Your task to perform on an android device: toggle improve location accuracy Image 0: 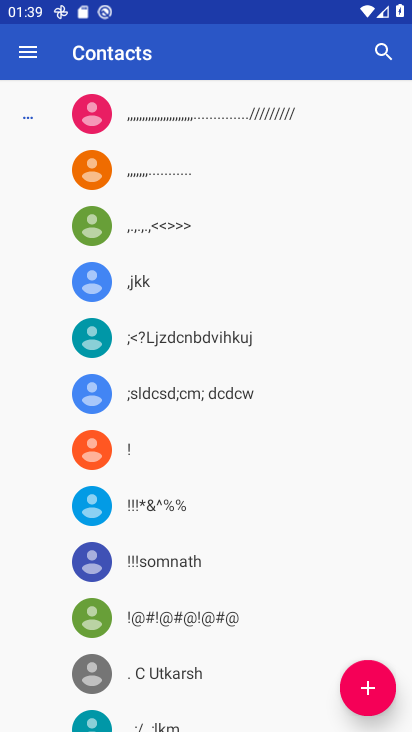
Step 0: press home button
Your task to perform on an android device: toggle improve location accuracy Image 1: 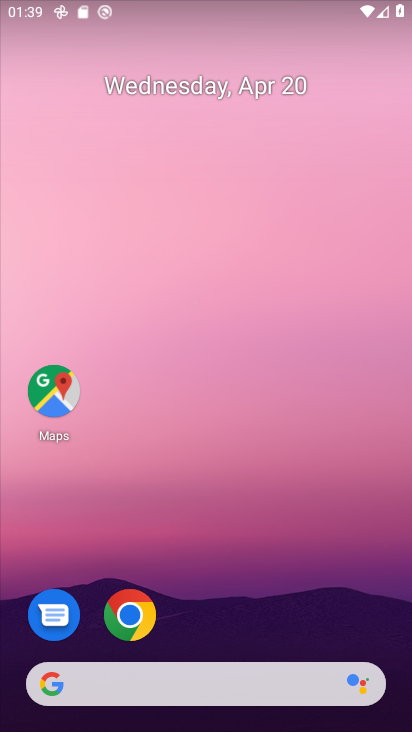
Step 1: drag from (333, 548) to (260, 130)
Your task to perform on an android device: toggle improve location accuracy Image 2: 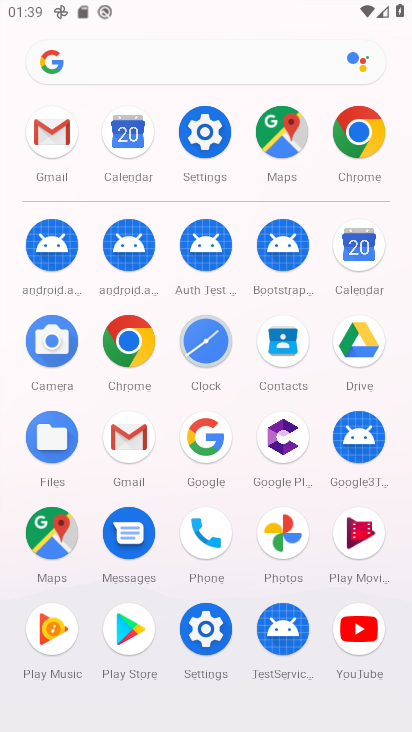
Step 2: click (210, 626)
Your task to perform on an android device: toggle improve location accuracy Image 3: 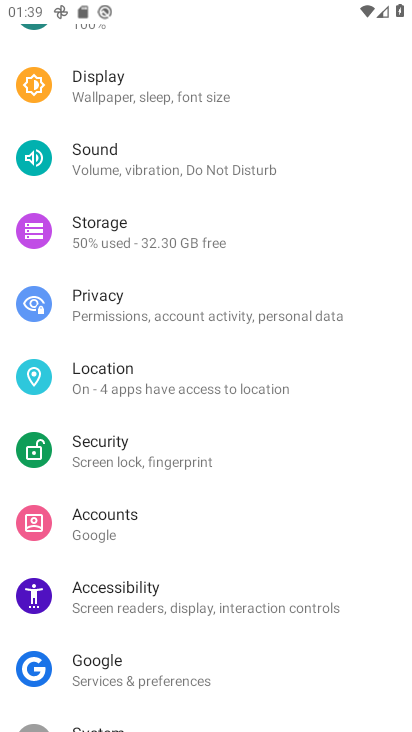
Step 3: click (106, 379)
Your task to perform on an android device: toggle improve location accuracy Image 4: 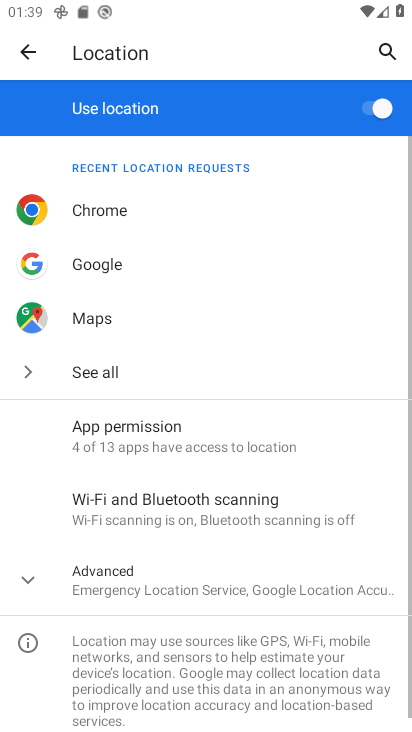
Step 4: click (46, 572)
Your task to perform on an android device: toggle improve location accuracy Image 5: 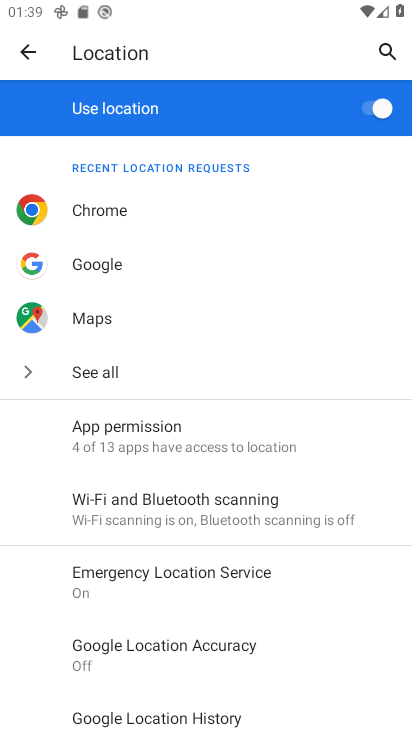
Step 5: click (144, 647)
Your task to perform on an android device: toggle improve location accuracy Image 6: 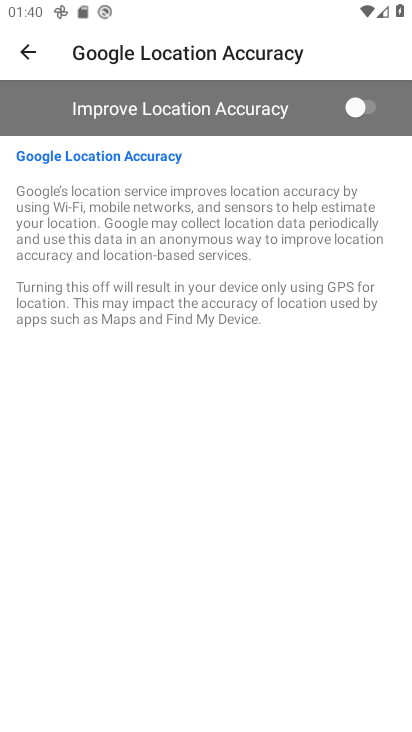
Step 6: click (369, 109)
Your task to perform on an android device: toggle improve location accuracy Image 7: 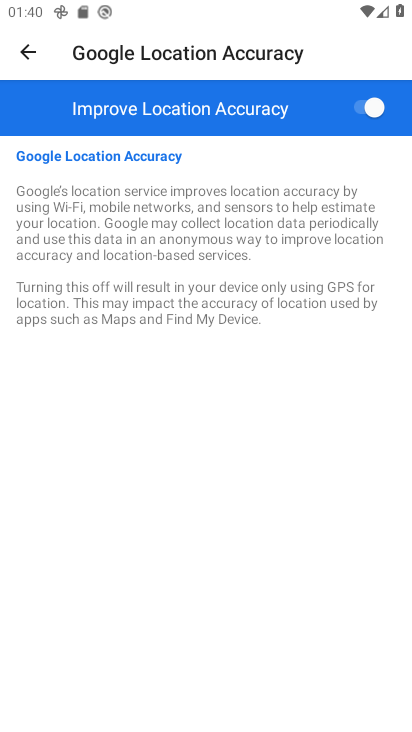
Step 7: task complete